Your task to perform on an android device: change text size in settings app Image 0: 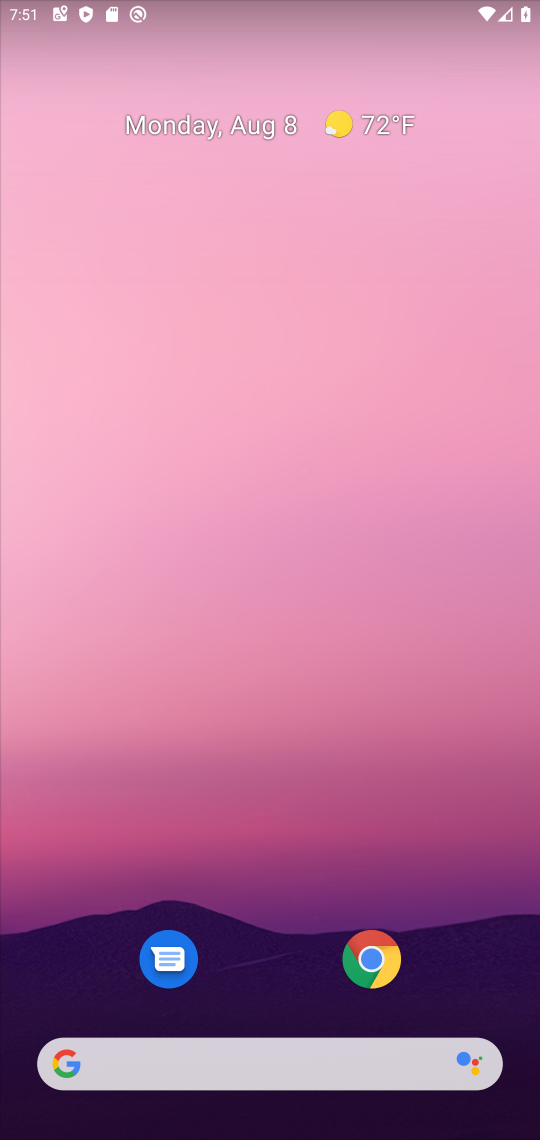
Step 0: drag from (490, 953) to (153, 2)
Your task to perform on an android device: change text size in settings app Image 1: 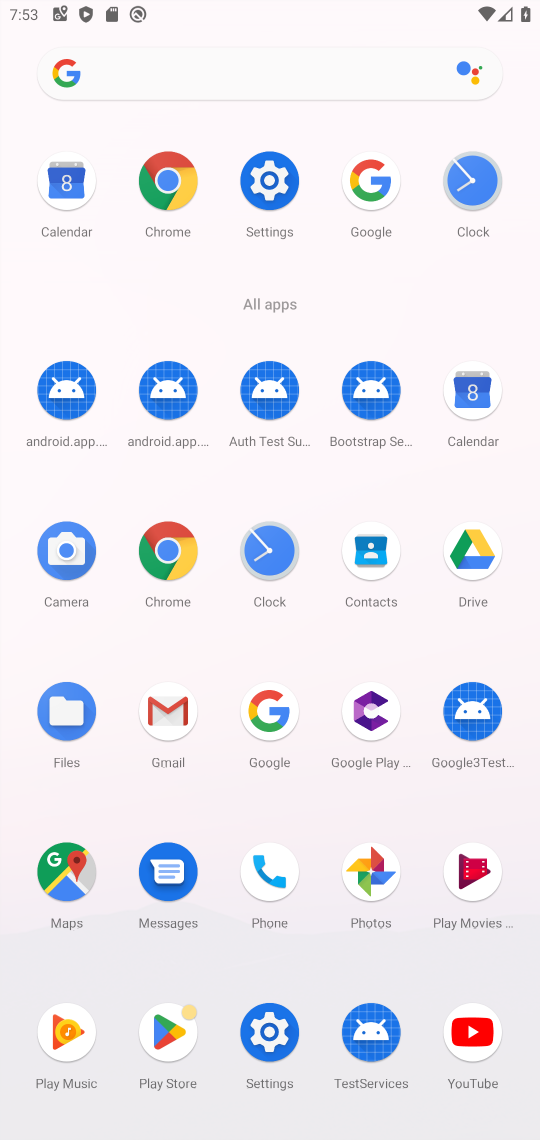
Step 1: click (269, 1013)
Your task to perform on an android device: change text size in settings app Image 2: 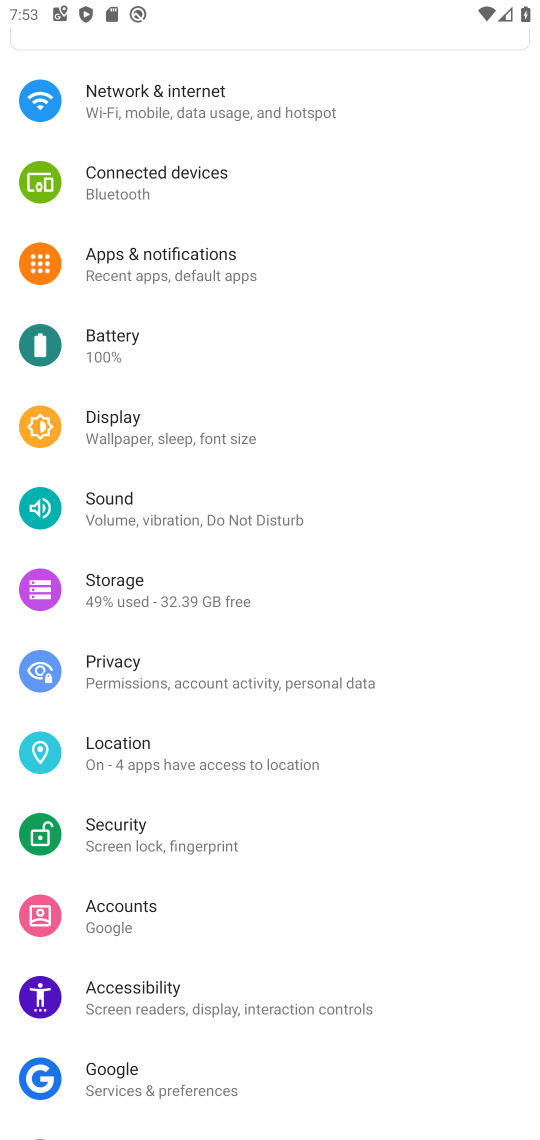
Step 2: click (127, 438)
Your task to perform on an android device: change text size in settings app Image 3: 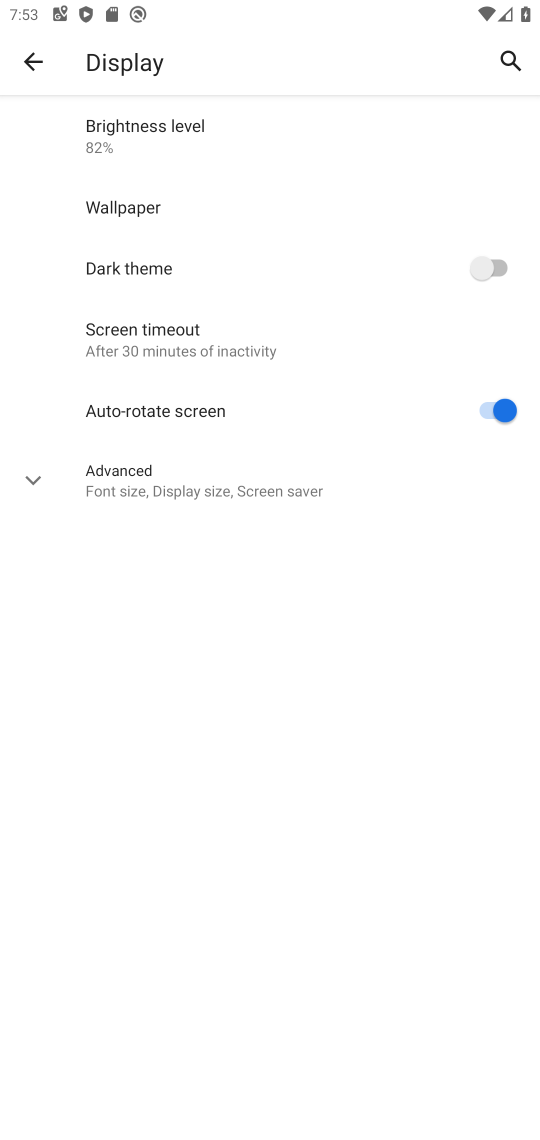
Step 3: click (102, 486)
Your task to perform on an android device: change text size in settings app Image 4: 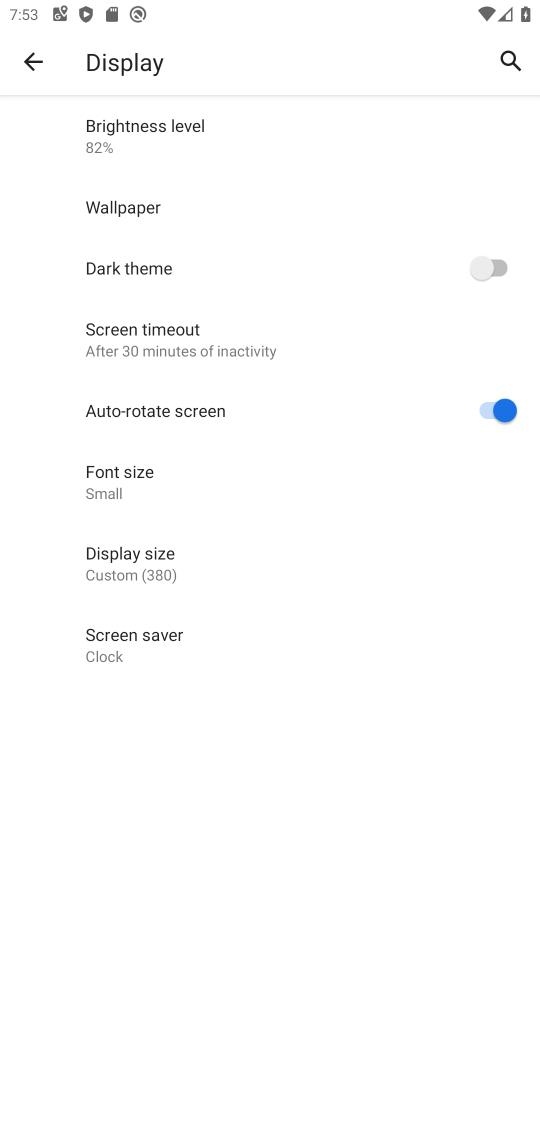
Step 4: click (130, 504)
Your task to perform on an android device: change text size in settings app Image 5: 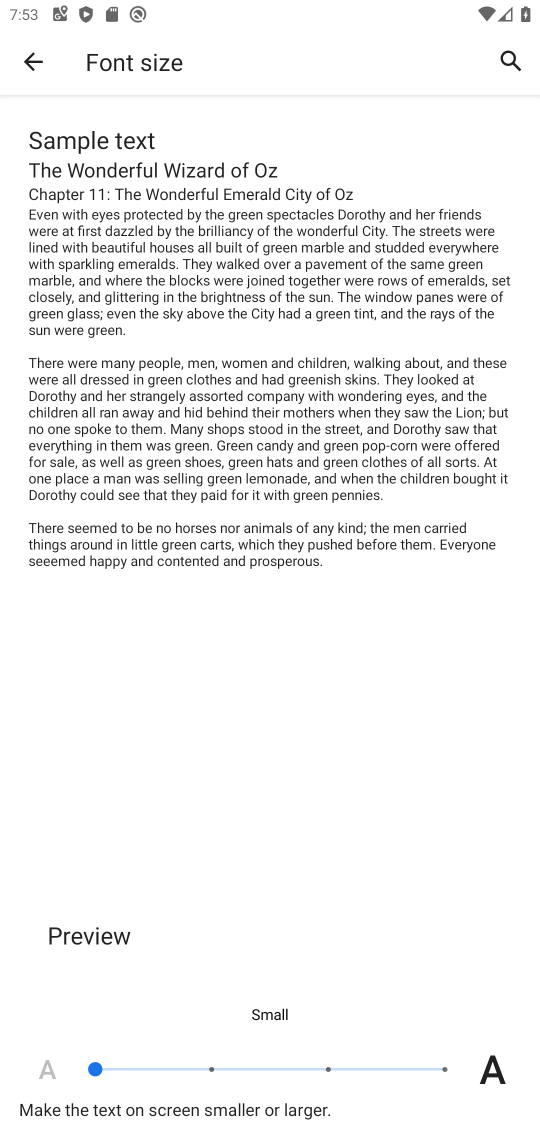
Step 5: click (443, 1069)
Your task to perform on an android device: change text size in settings app Image 6: 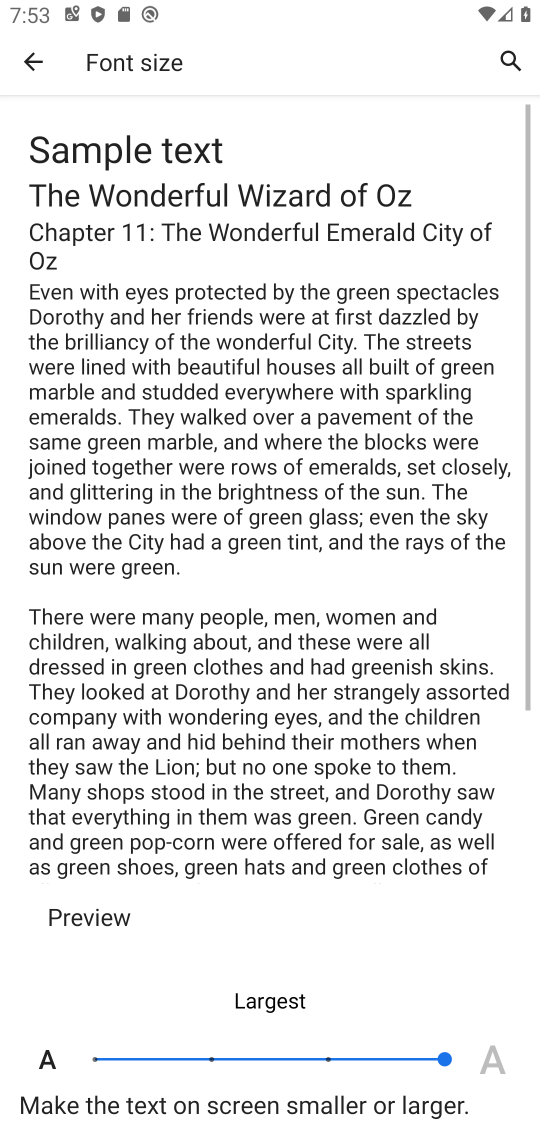
Step 6: task complete